Your task to perform on an android device: search for starred emails in the gmail app Image 0: 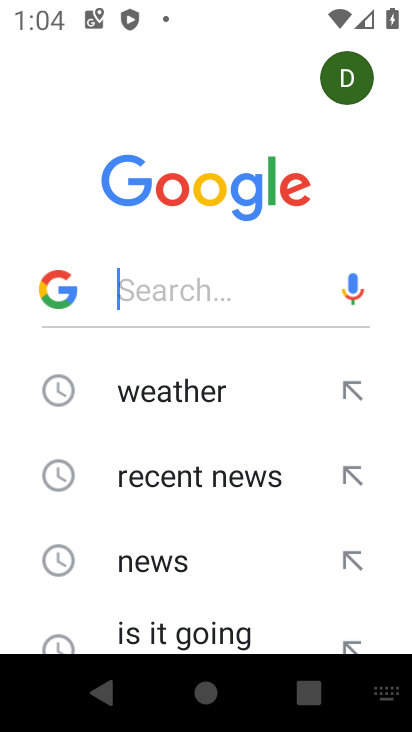
Step 0: press home button
Your task to perform on an android device: search for starred emails in the gmail app Image 1: 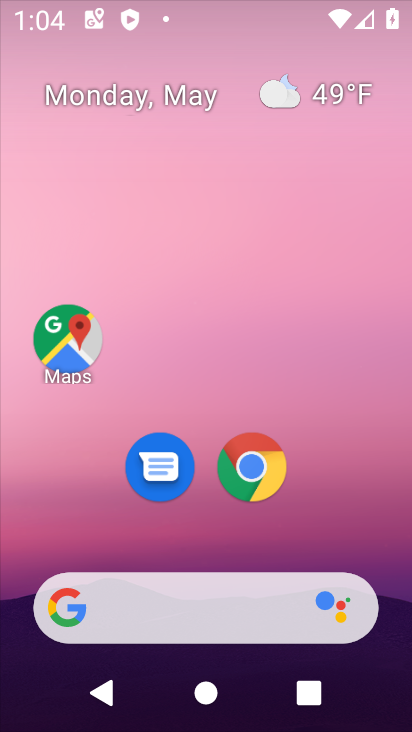
Step 1: drag from (323, 525) to (349, 197)
Your task to perform on an android device: search for starred emails in the gmail app Image 2: 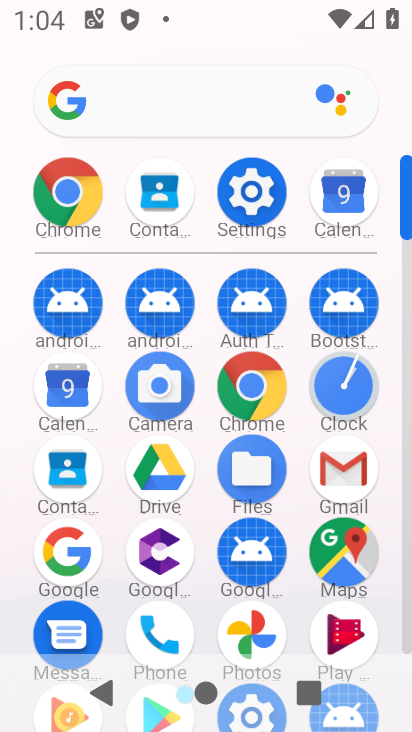
Step 2: click (70, 210)
Your task to perform on an android device: search for starred emails in the gmail app Image 3: 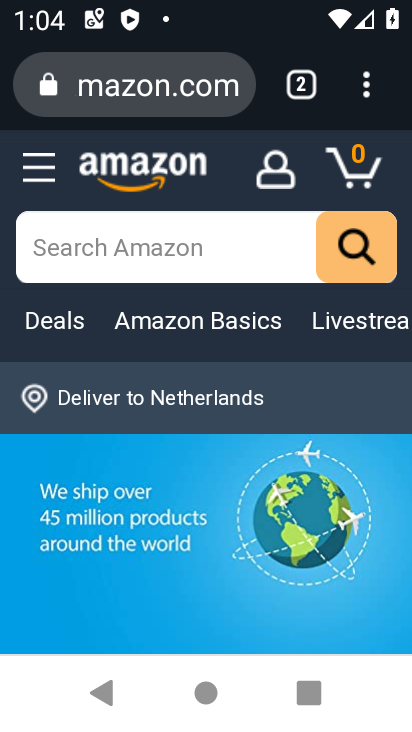
Step 3: click (197, 104)
Your task to perform on an android device: search for starred emails in the gmail app Image 4: 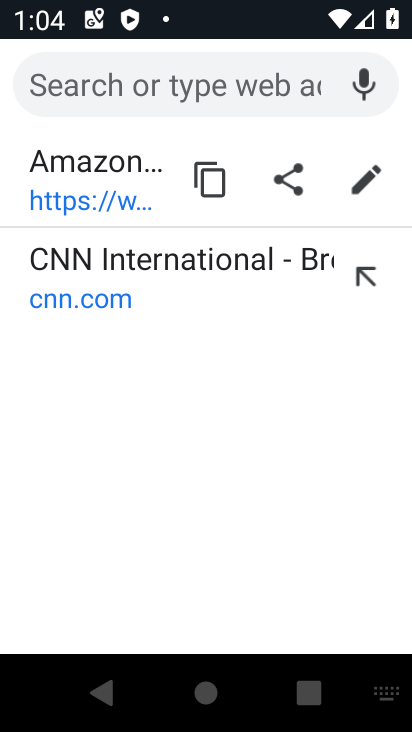
Step 4: press home button
Your task to perform on an android device: search for starred emails in the gmail app Image 5: 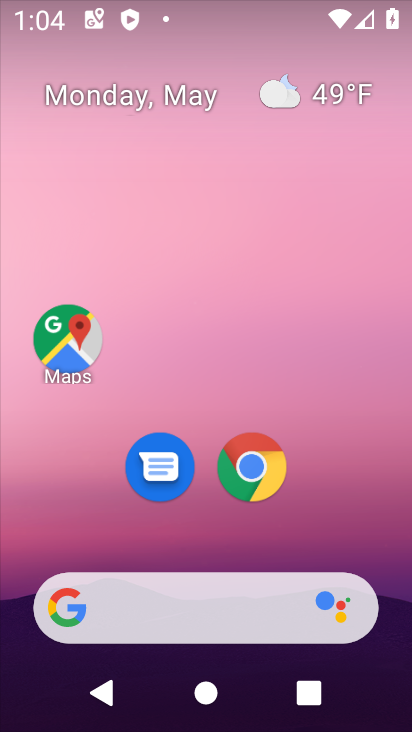
Step 5: drag from (368, 521) to (366, 193)
Your task to perform on an android device: search for starred emails in the gmail app Image 6: 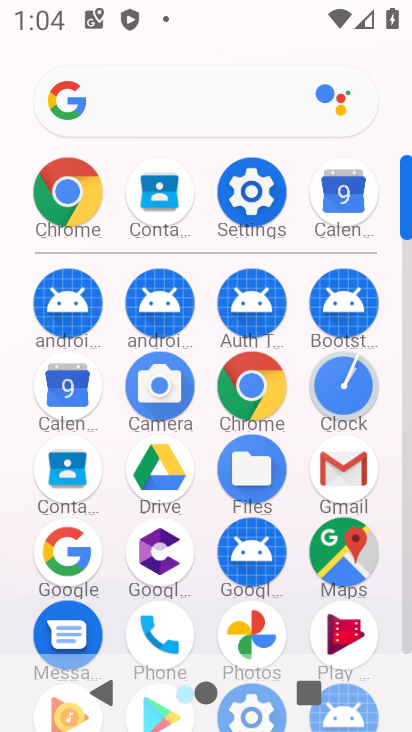
Step 6: click (314, 465)
Your task to perform on an android device: search for starred emails in the gmail app Image 7: 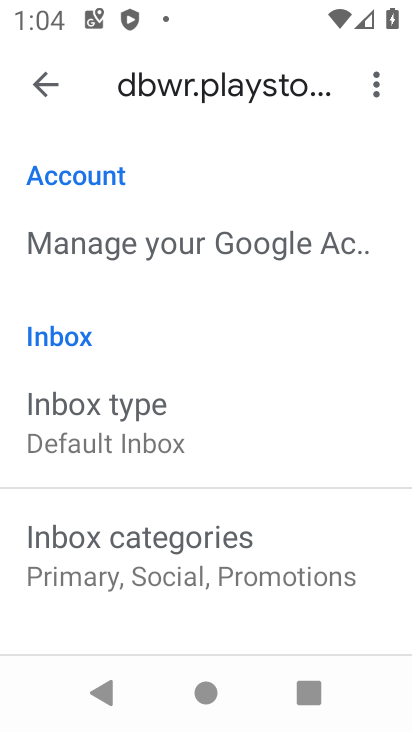
Step 7: drag from (133, 539) to (153, 330)
Your task to perform on an android device: search for starred emails in the gmail app Image 8: 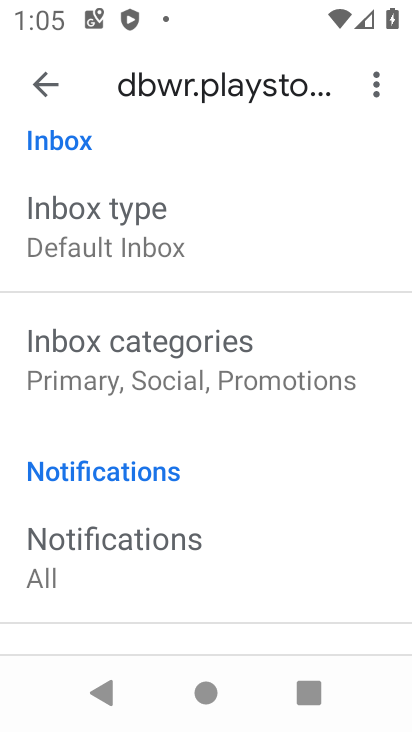
Step 8: click (48, 80)
Your task to perform on an android device: search for starred emails in the gmail app Image 9: 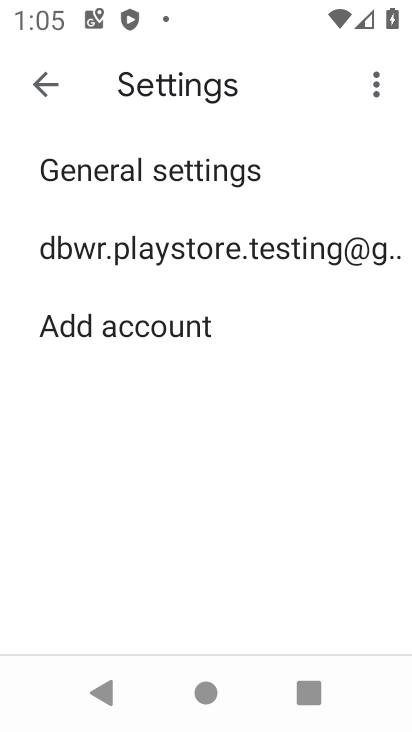
Step 9: click (49, 81)
Your task to perform on an android device: search for starred emails in the gmail app Image 10: 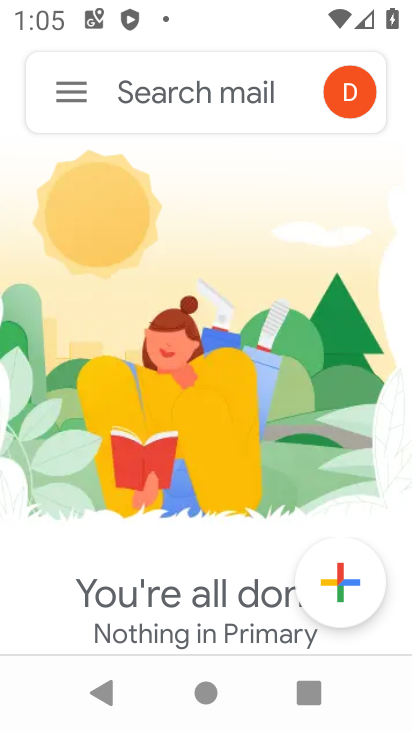
Step 10: click (83, 105)
Your task to perform on an android device: search for starred emails in the gmail app Image 11: 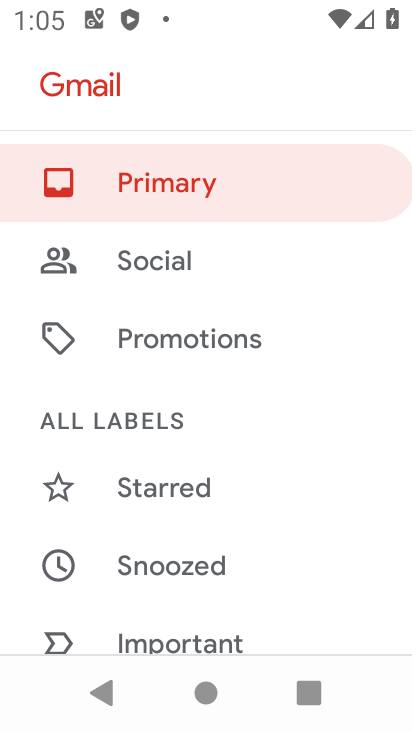
Step 11: click (174, 502)
Your task to perform on an android device: search for starred emails in the gmail app Image 12: 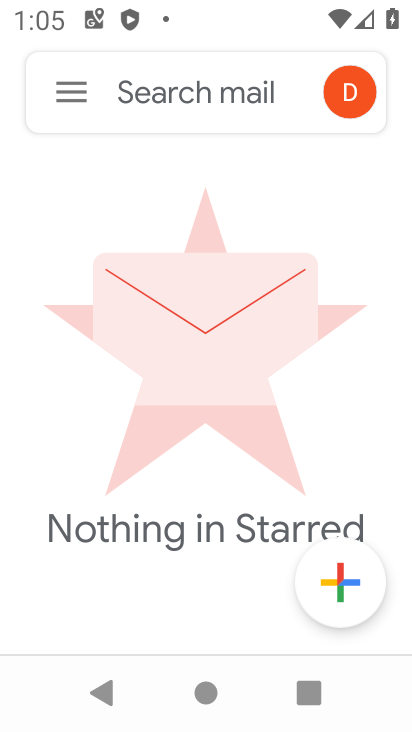
Step 12: task complete